Your task to perform on an android device: open wifi settings Image 0: 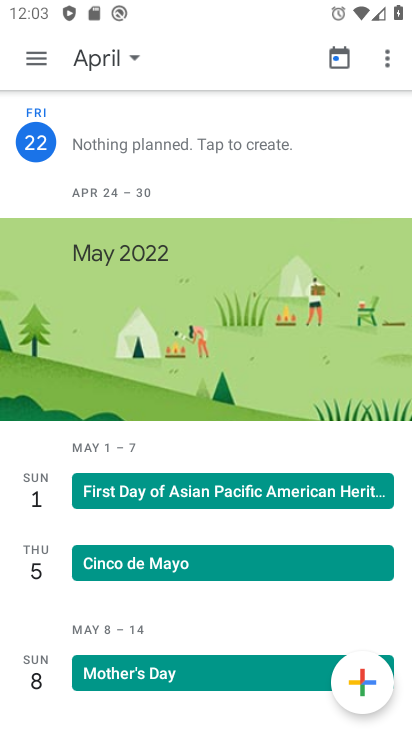
Step 0: press home button
Your task to perform on an android device: open wifi settings Image 1: 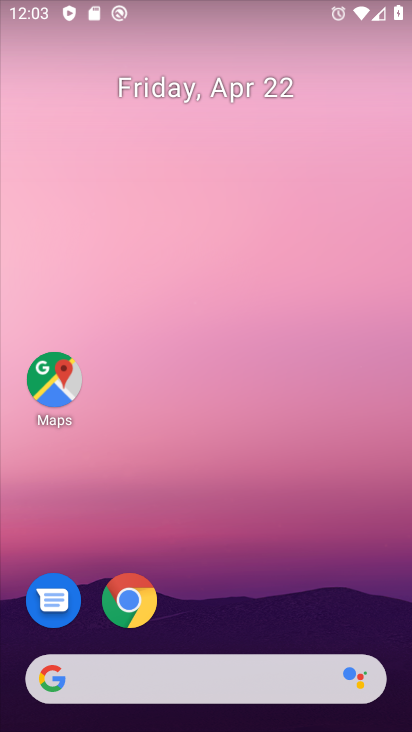
Step 1: drag from (259, 575) to (270, 40)
Your task to perform on an android device: open wifi settings Image 2: 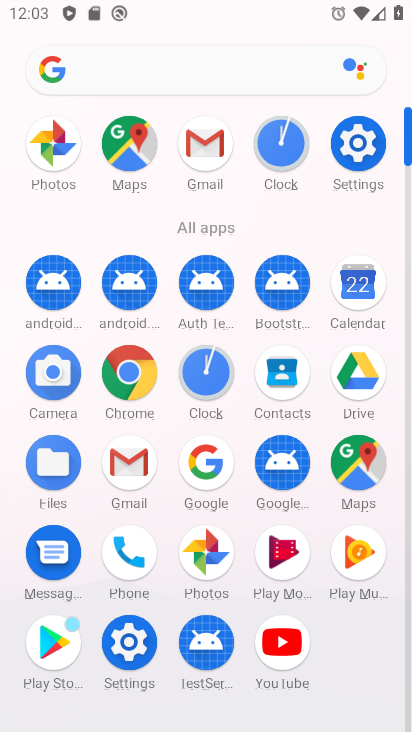
Step 2: click (358, 145)
Your task to perform on an android device: open wifi settings Image 3: 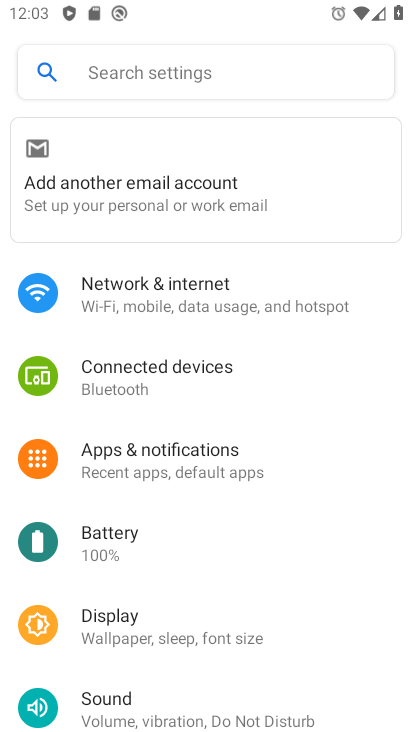
Step 3: click (210, 290)
Your task to perform on an android device: open wifi settings Image 4: 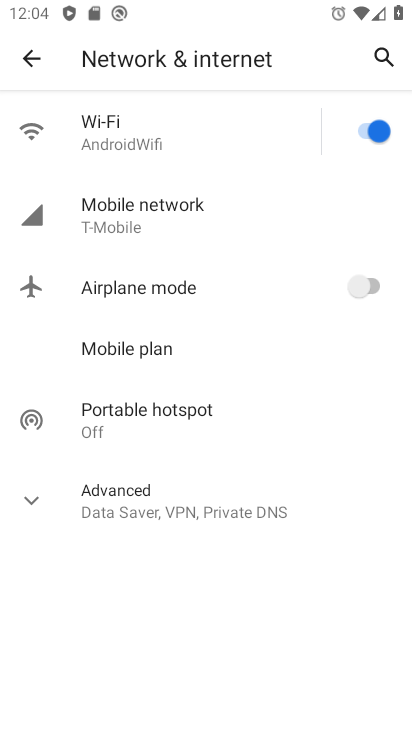
Step 4: click (148, 142)
Your task to perform on an android device: open wifi settings Image 5: 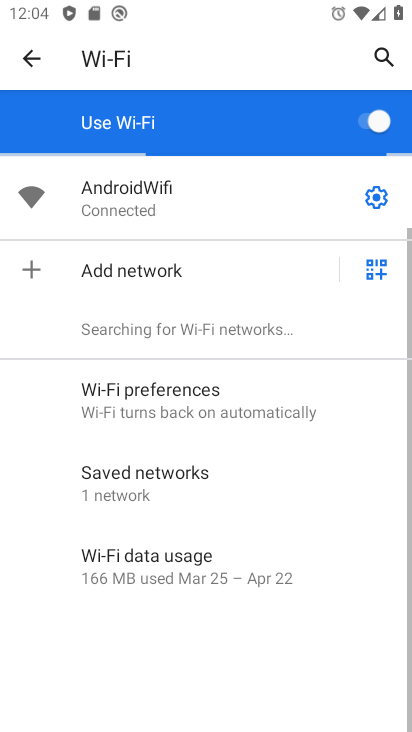
Step 5: task complete